Your task to perform on an android device: delete browsing data in the chrome app Image 0: 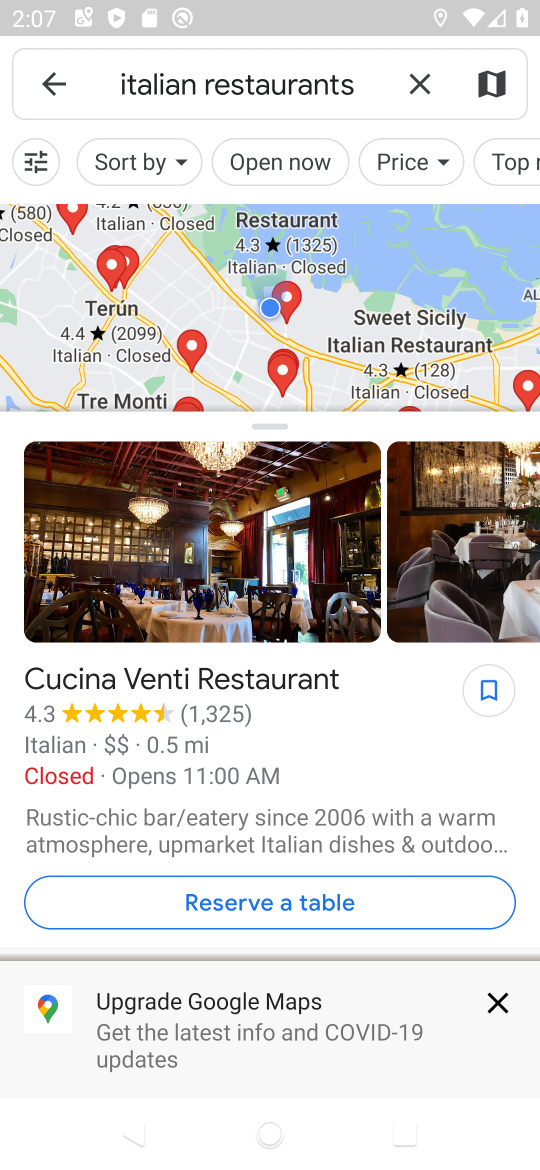
Step 0: press home button
Your task to perform on an android device: delete browsing data in the chrome app Image 1: 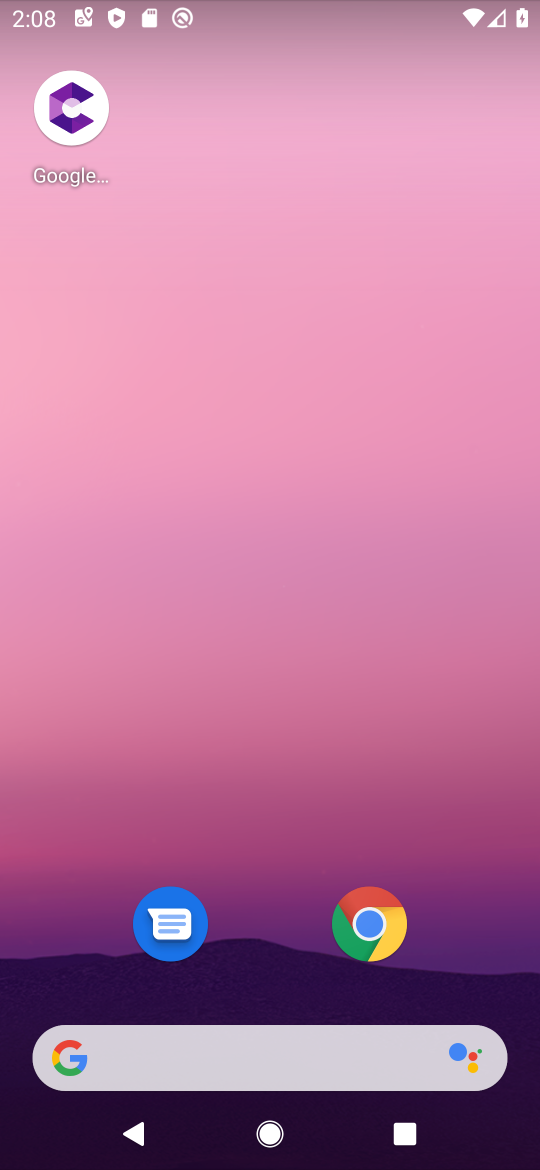
Step 1: click (366, 926)
Your task to perform on an android device: delete browsing data in the chrome app Image 2: 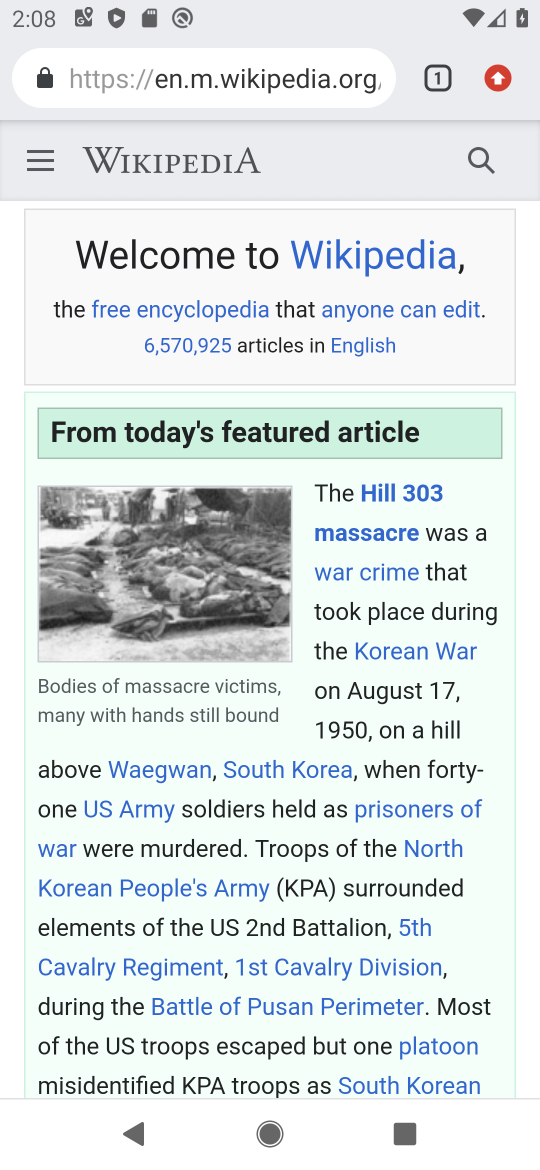
Step 2: click (495, 82)
Your task to perform on an android device: delete browsing data in the chrome app Image 3: 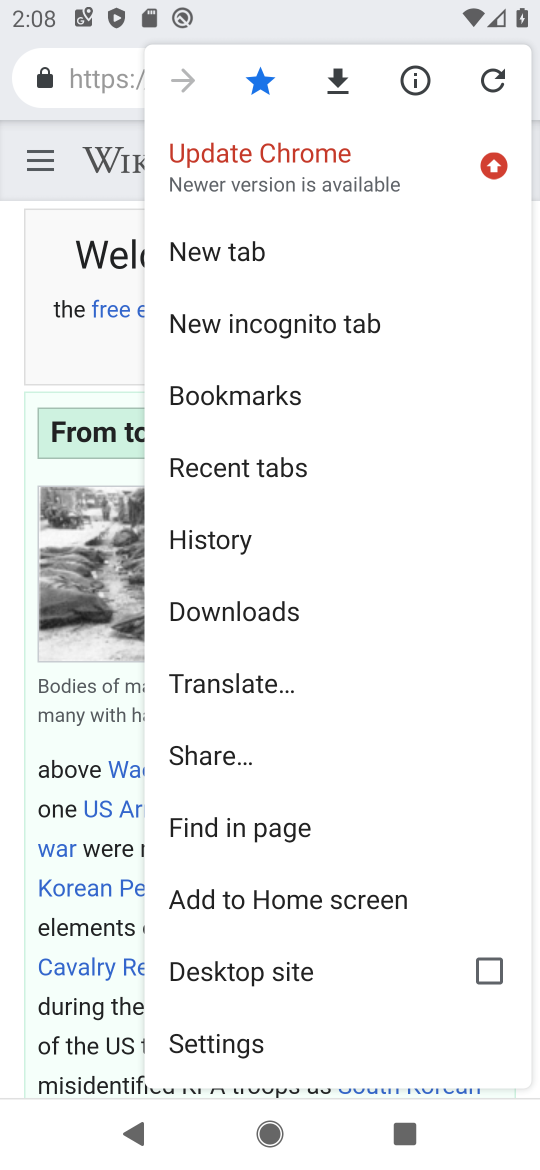
Step 3: click (238, 1040)
Your task to perform on an android device: delete browsing data in the chrome app Image 4: 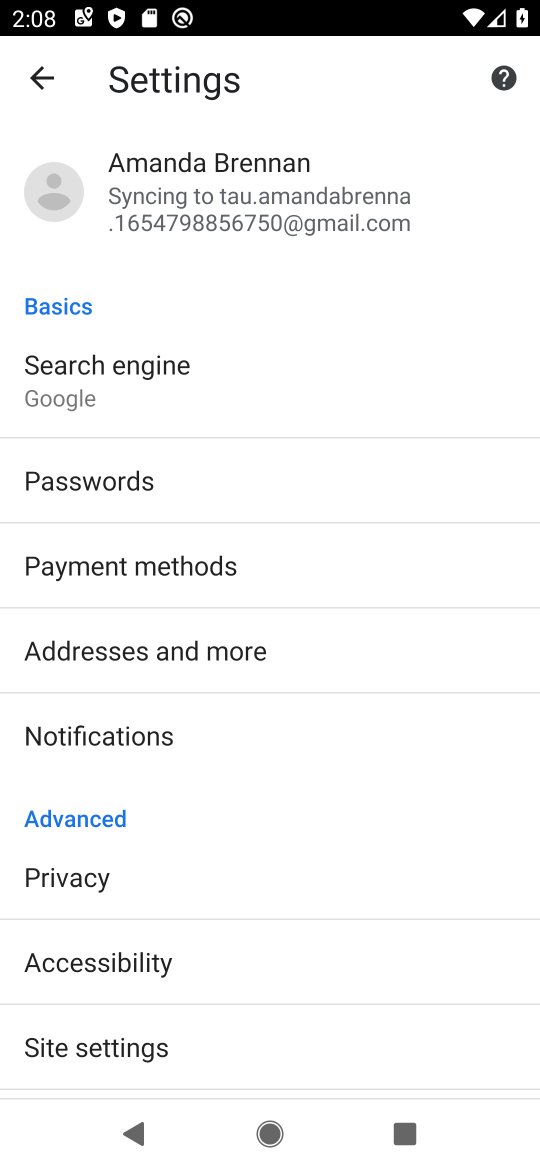
Step 4: click (93, 878)
Your task to perform on an android device: delete browsing data in the chrome app Image 5: 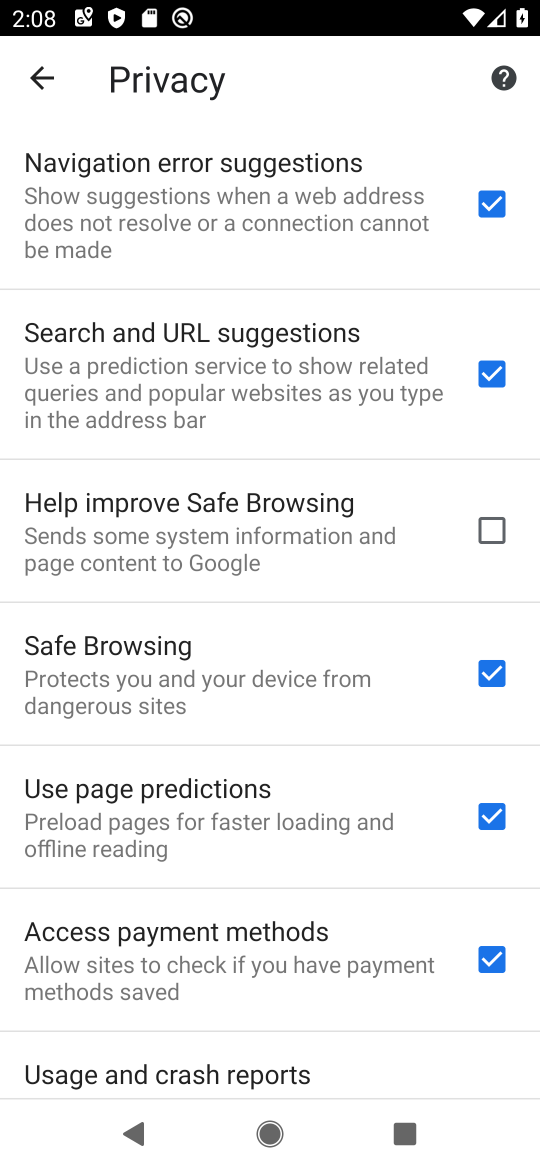
Step 5: drag from (166, 890) to (270, 679)
Your task to perform on an android device: delete browsing data in the chrome app Image 6: 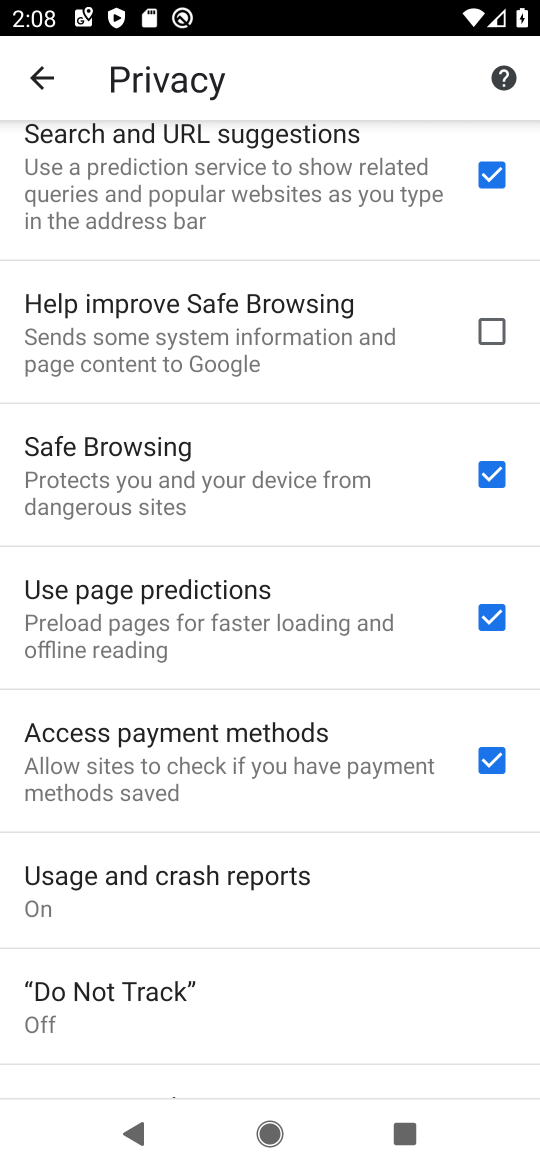
Step 6: drag from (248, 943) to (346, 595)
Your task to perform on an android device: delete browsing data in the chrome app Image 7: 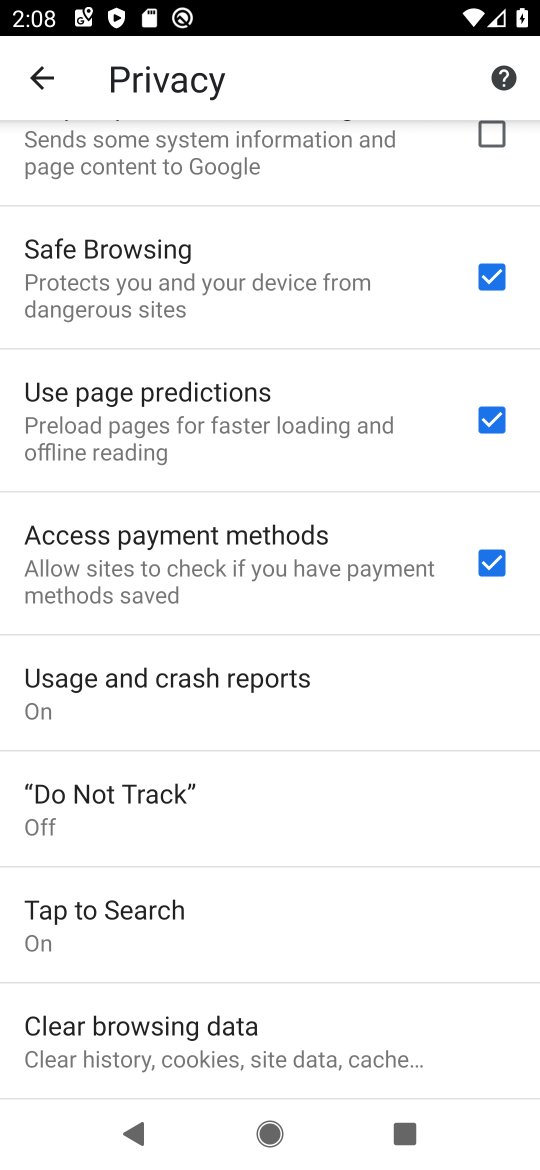
Step 7: click (251, 1060)
Your task to perform on an android device: delete browsing data in the chrome app Image 8: 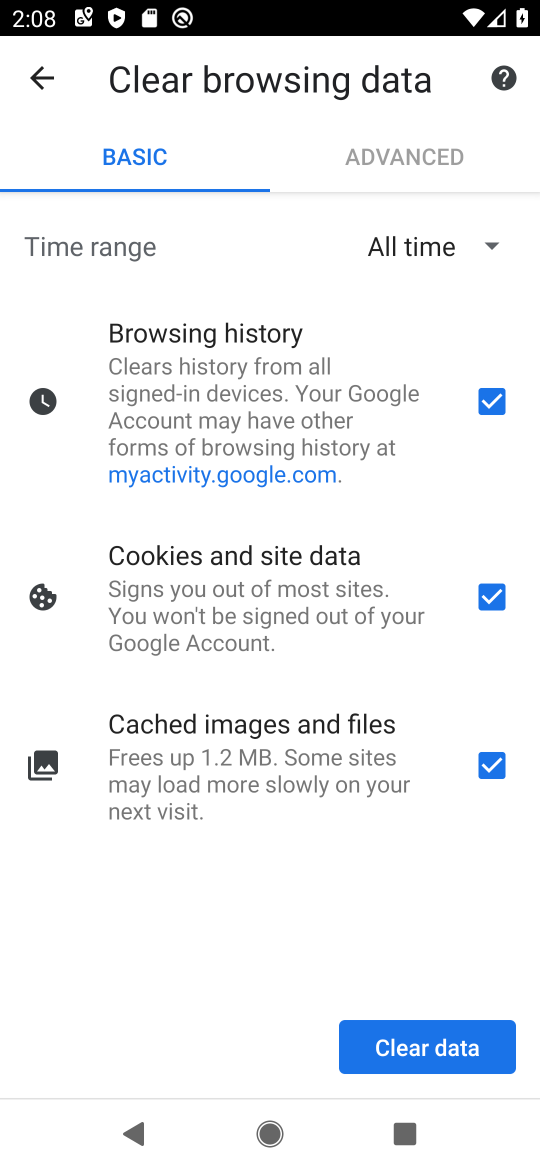
Step 8: click (463, 1042)
Your task to perform on an android device: delete browsing data in the chrome app Image 9: 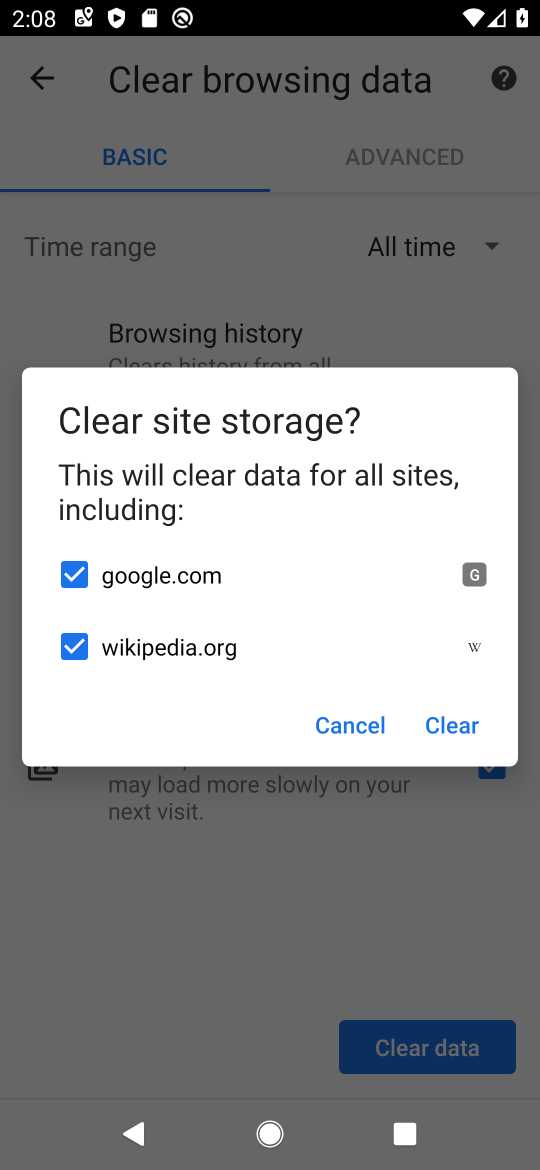
Step 9: click (423, 723)
Your task to perform on an android device: delete browsing data in the chrome app Image 10: 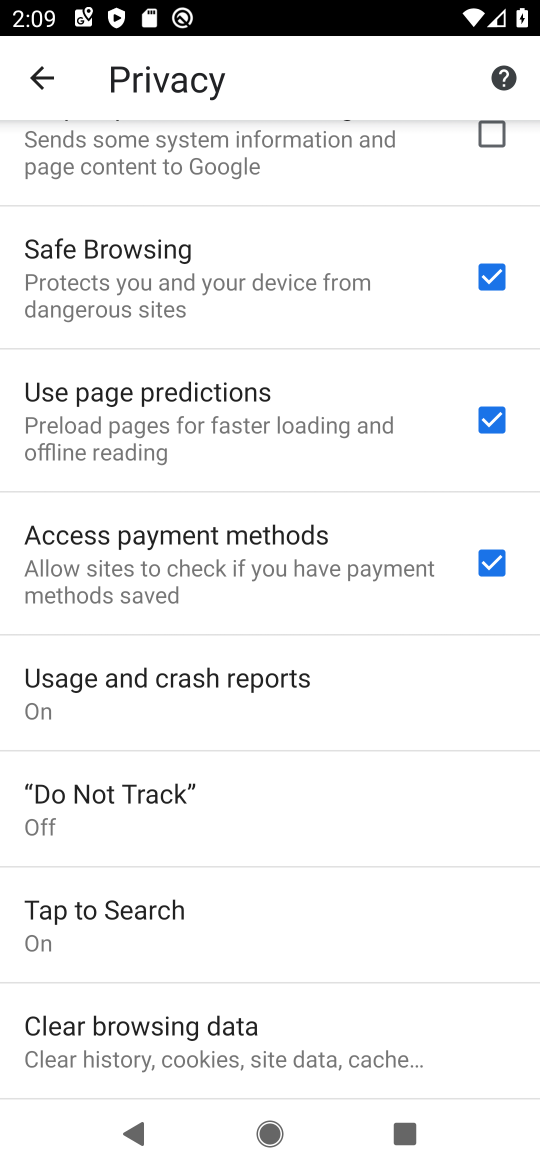
Step 10: task complete